Your task to perform on an android device: remove spam from my inbox in the gmail app Image 0: 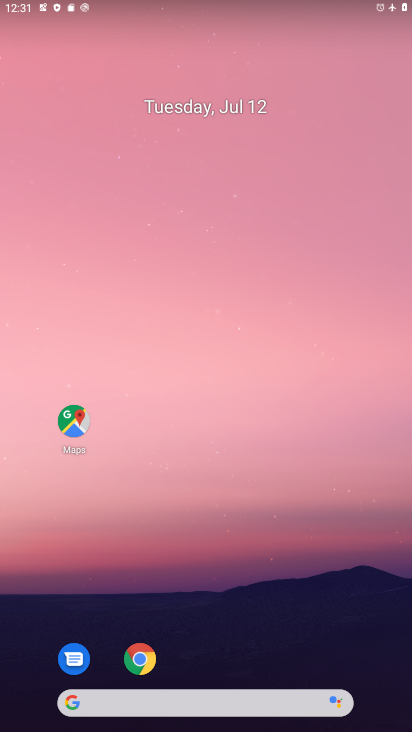
Step 0: click (230, 37)
Your task to perform on an android device: remove spam from my inbox in the gmail app Image 1: 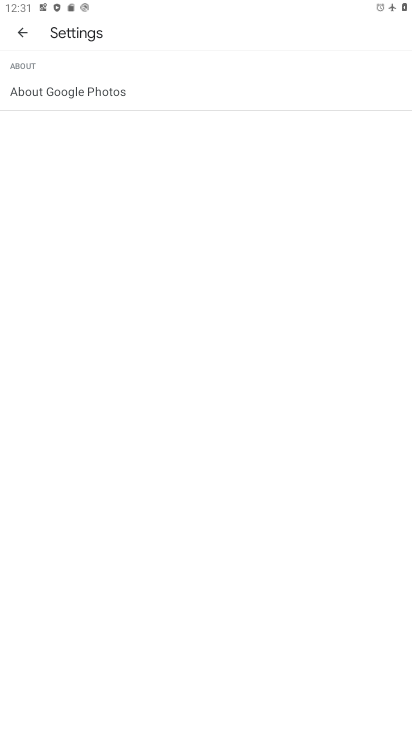
Step 1: press home button
Your task to perform on an android device: remove spam from my inbox in the gmail app Image 2: 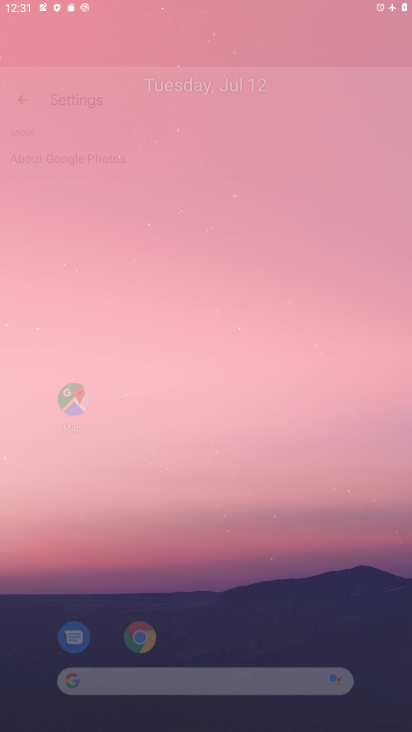
Step 2: drag from (176, 680) to (219, 115)
Your task to perform on an android device: remove spam from my inbox in the gmail app Image 3: 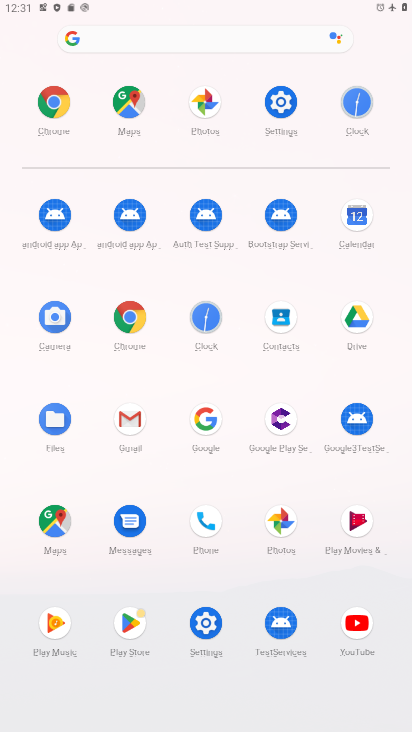
Step 3: click (127, 423)
Your task to perform on an android device: remove spam from my inbox in the gmail app Image 4: 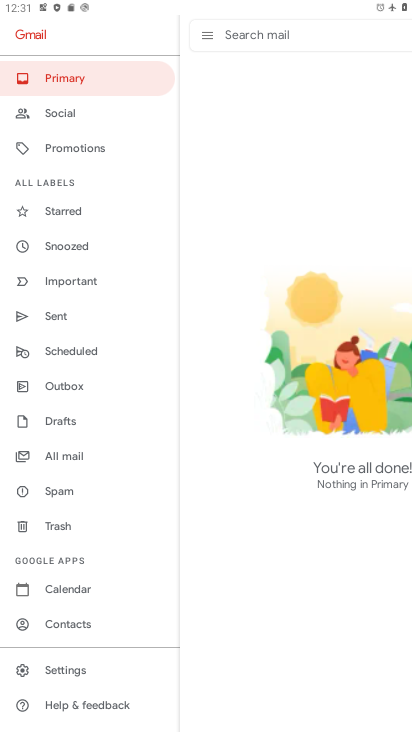
Step 4: click (57, 486)
Your task to perform on an android device: remove spam from my inbox in the gmail app Image 5: 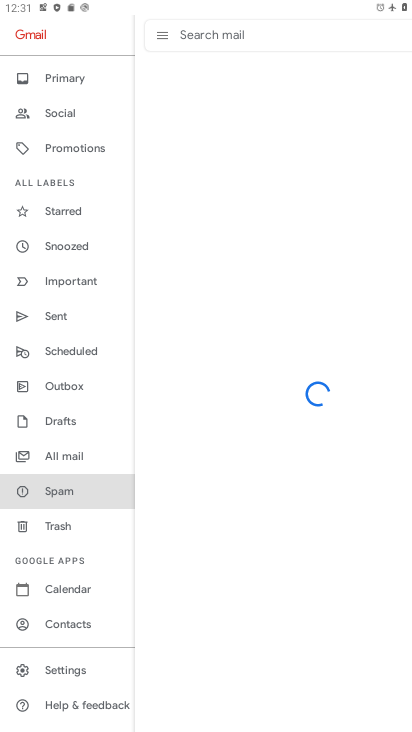
Step 5: task complete